Your task to perform on an android device: Open my contact list Image 0: 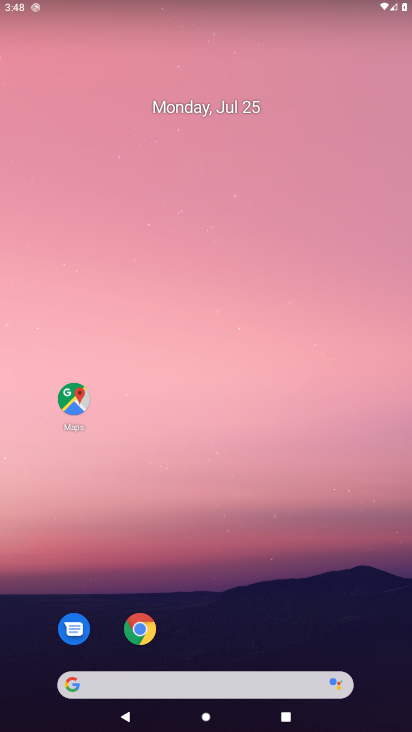
Step 0: drag from (26, 711) to (244, 122)
Your task to perform on an android device: Open my contact list Image 1: 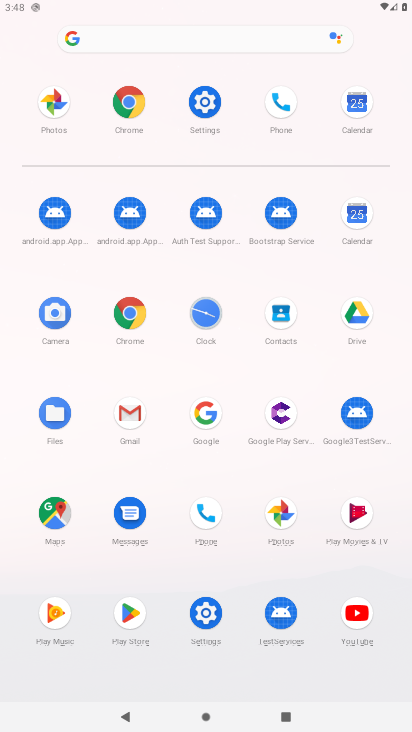
Step 1: click (206, 525)
Your task to perform on an android device: Open my contact list Image 2: 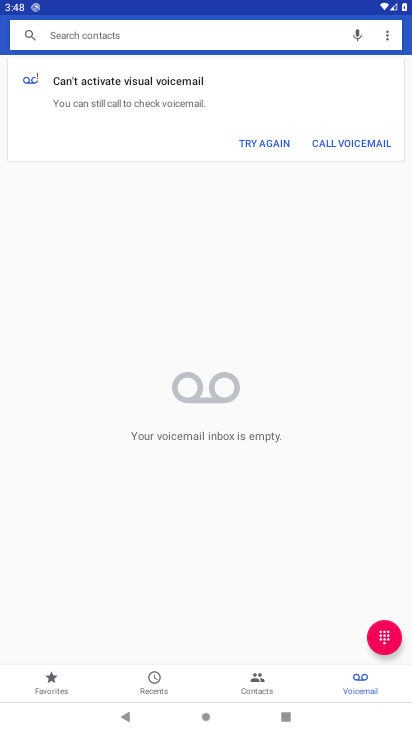
Step 2: click (48, 683)
Your task to perform on an android device: Open my contact list Image 3: 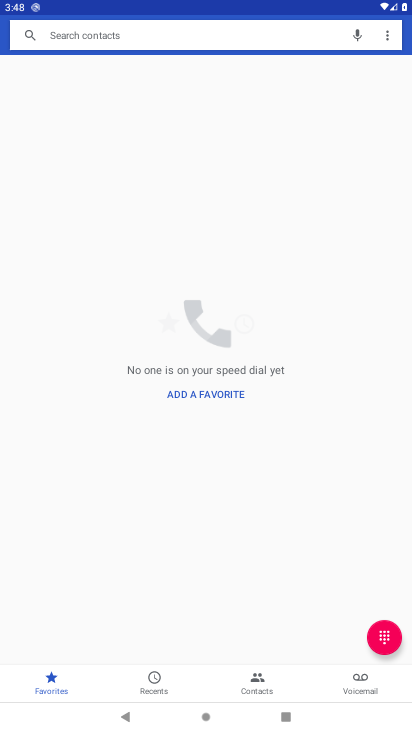
Step 3: click (263, 684)
Your task to perform on an android device: Open my contact list Image 4: 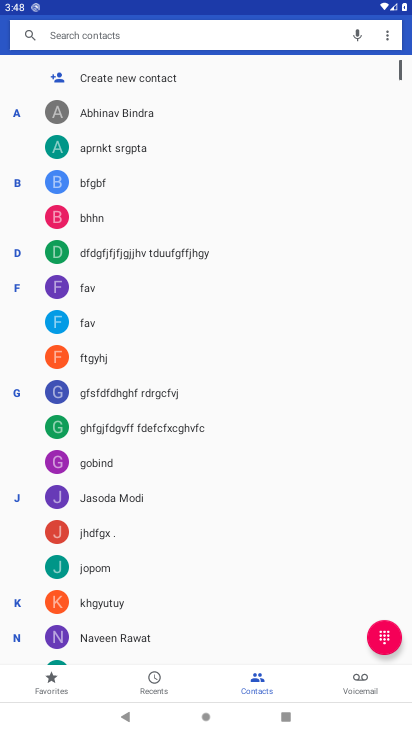
Step 4: task complete